Your task to perform on an android device: When is my next meeting? Image 0: 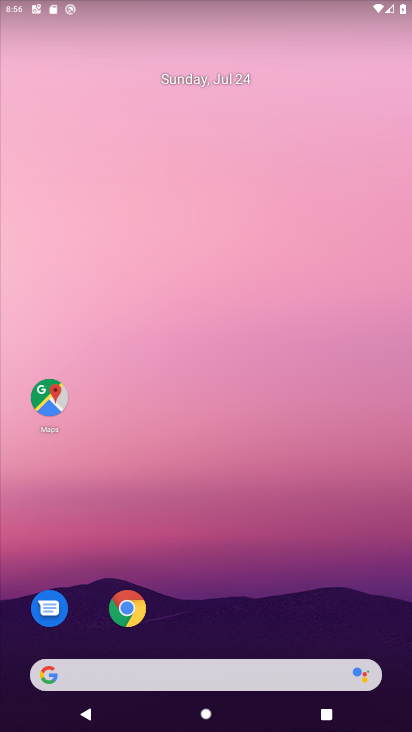
Step 0: drag from (255, 639) to (273, 0)
Your task to perform on an android device: When is my next meeting? Image 1: 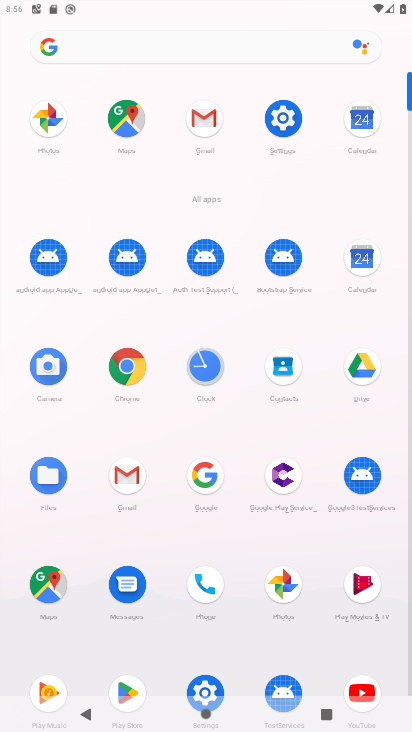
Step 1: click (372, 254)
Your task to perform on an android device: When is my next meeting? Image 2: 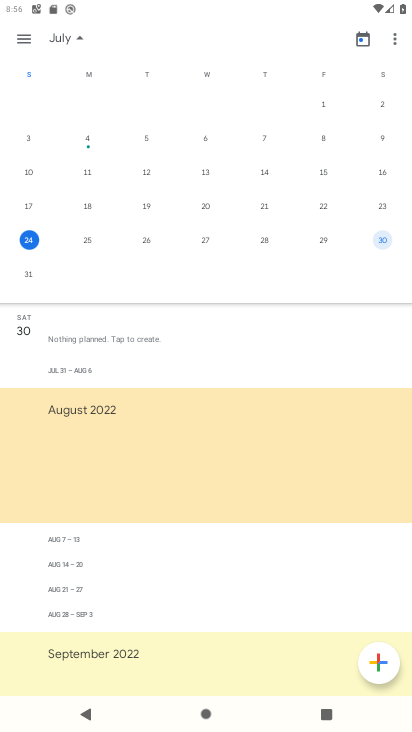
Step 2: click (38, 239)
Your task to perform on an android device: When is my next meeting? Image 3: 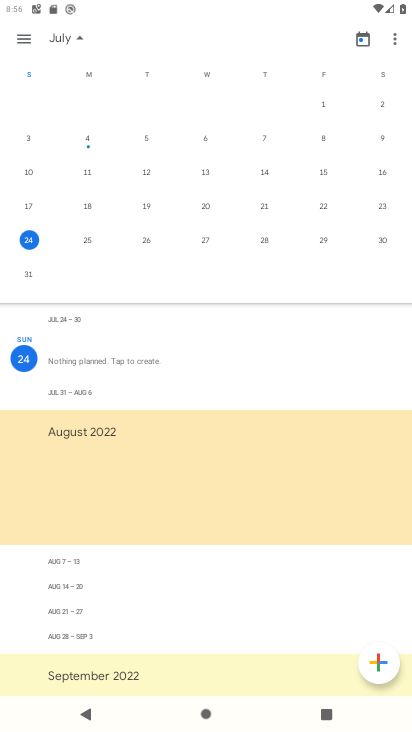
Step 3: task complete